Your task to perform on an android device: Open maps Image 0: 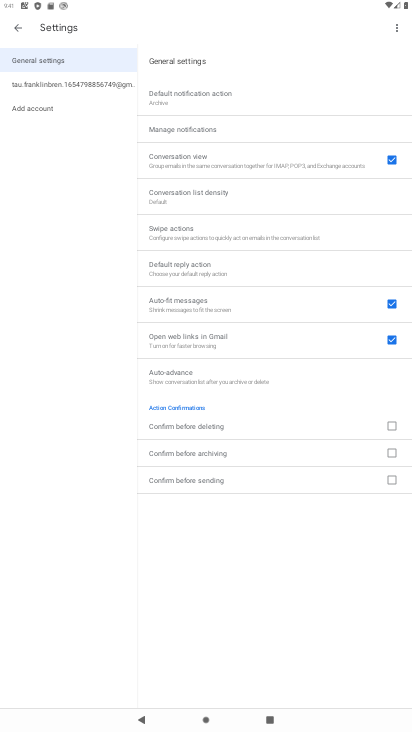
Step 0: press home button
Your task to perform on an android device: Open maps Image 1: 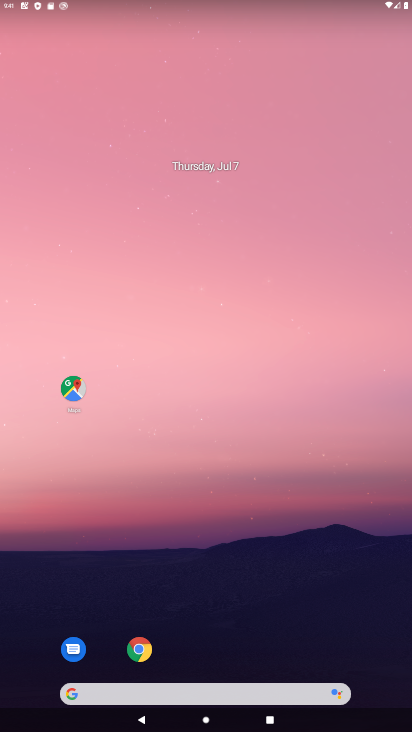
Step 1: click (70, 383)
Your task to perform on an android device: Open maps Image 2: 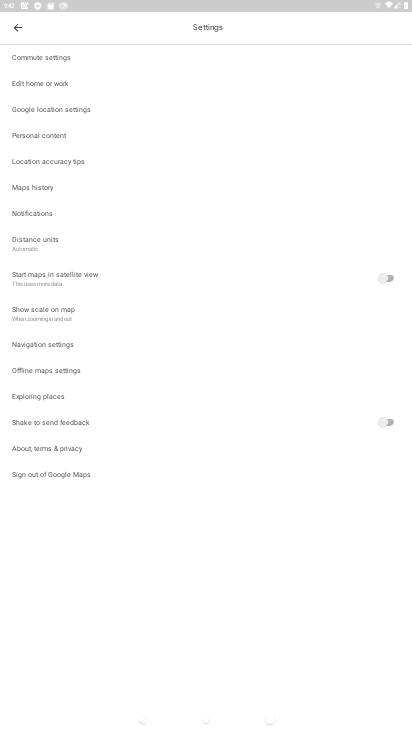
Step 2: click (18, 32)
Your task to perform on an android device: Open maps Image 3: 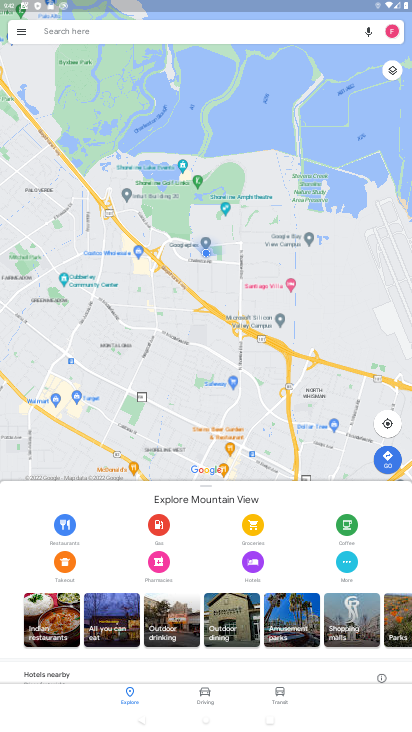
Step 3: task complete